Your task to perform on an android device: open app "Facebook Messenger" Image 0: 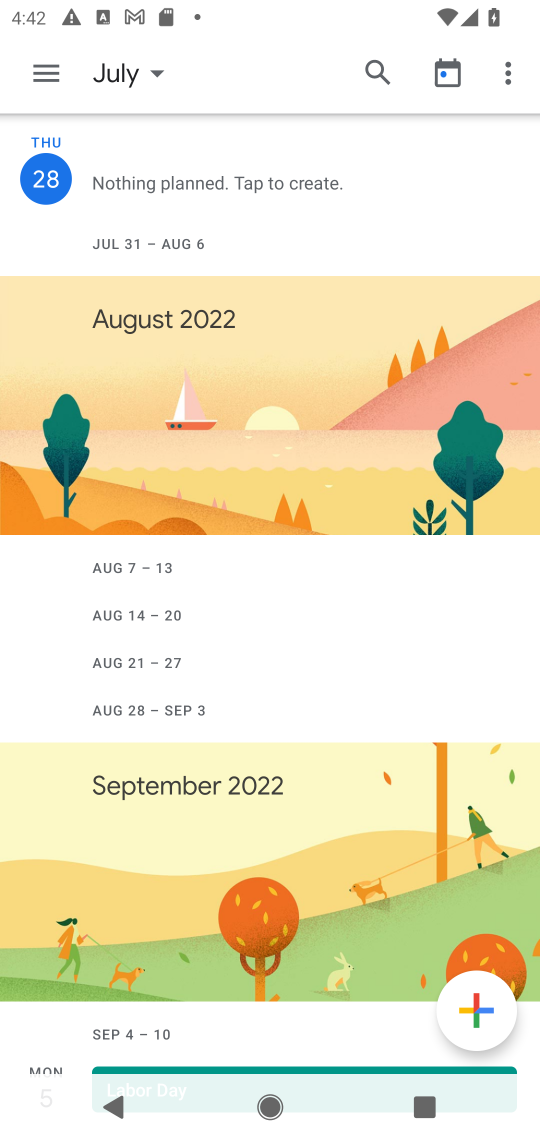
Step 0: press home button
Your task to perform on an android device: open app "Facebook Messenger" Image 1: 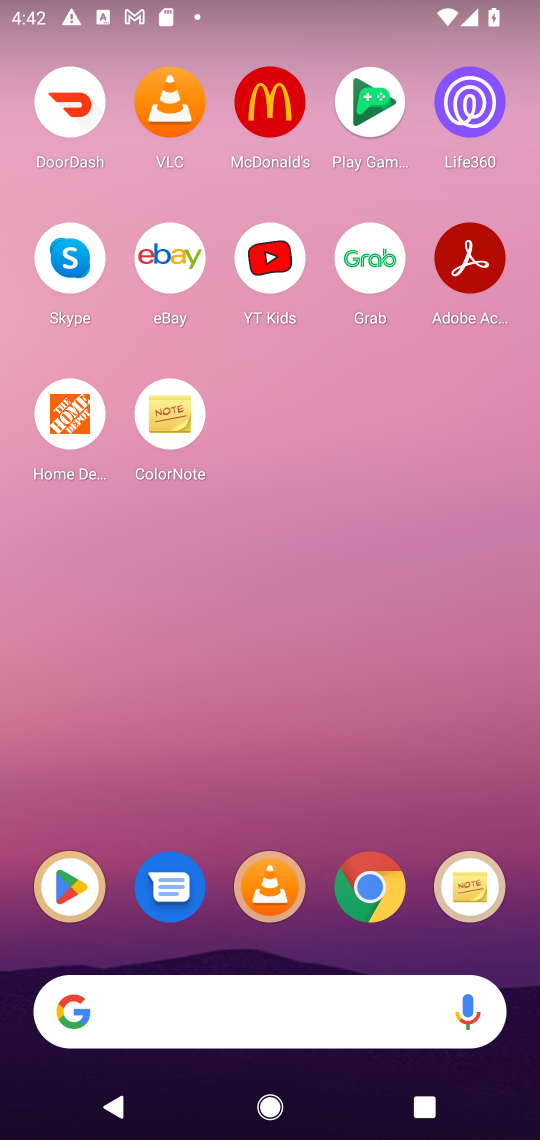
Step 1: click (80, 901)
Your task to perform on an android device: open app "Facebook Messenger" Image 2: 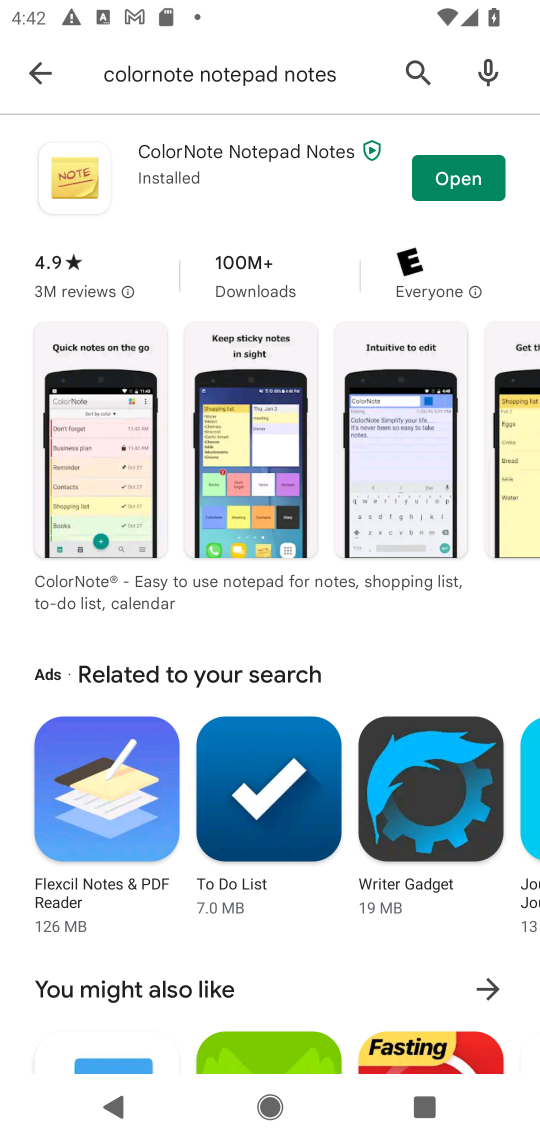
Step 2: click (255, 75)
Your task to perform on an android device: open app "Facebook Messenger" Image 3: 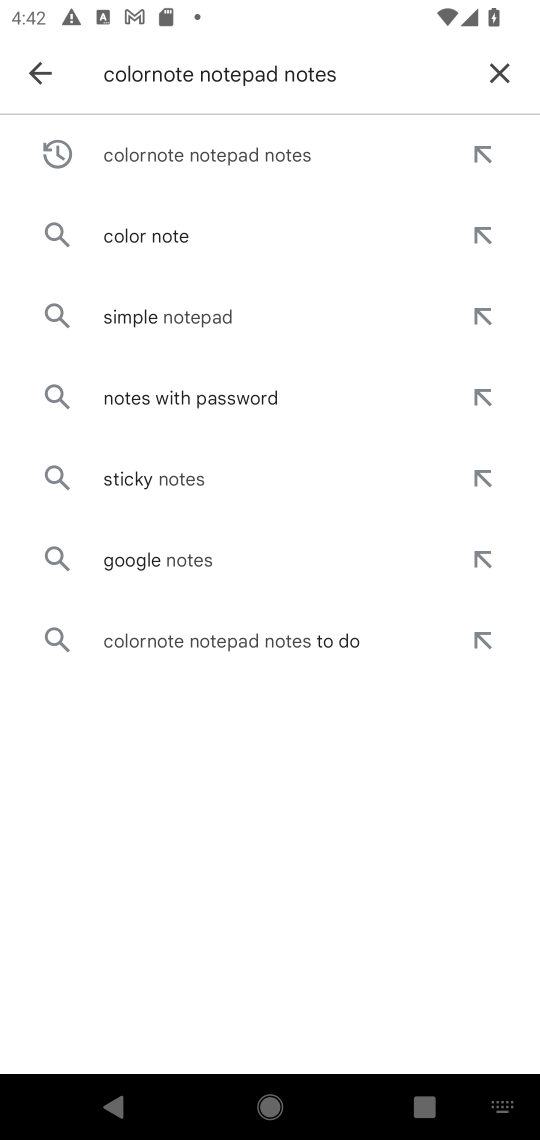
Step 3: click (504, 71)
Your task to perform on an android device: open app "Facebook Messenger" Image 4: 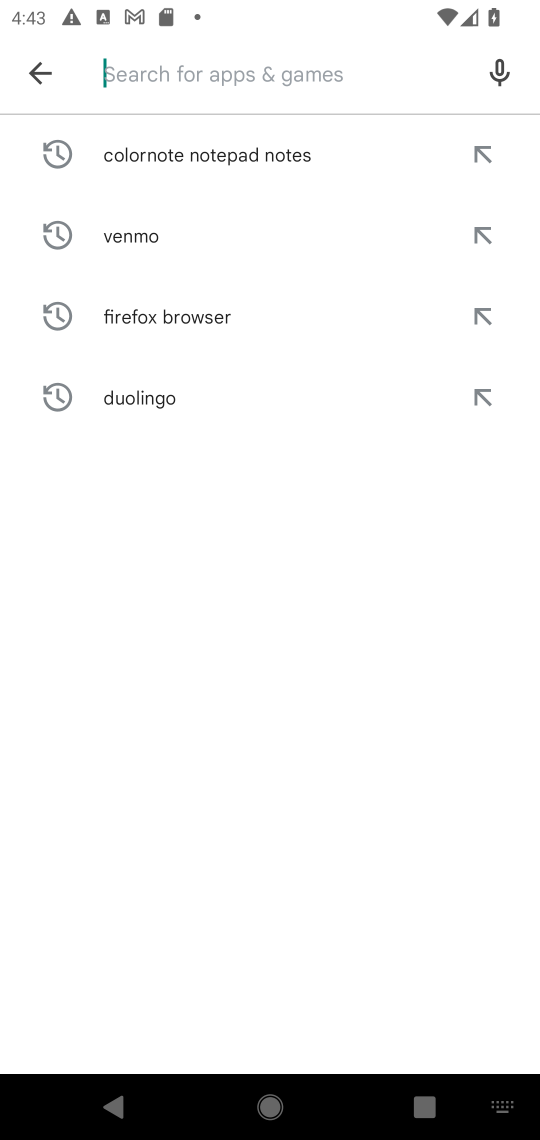
Step 4: type "Facebook Messenger"
Your task to perform on an android device: open app "Facebook Messenger" Image 5: 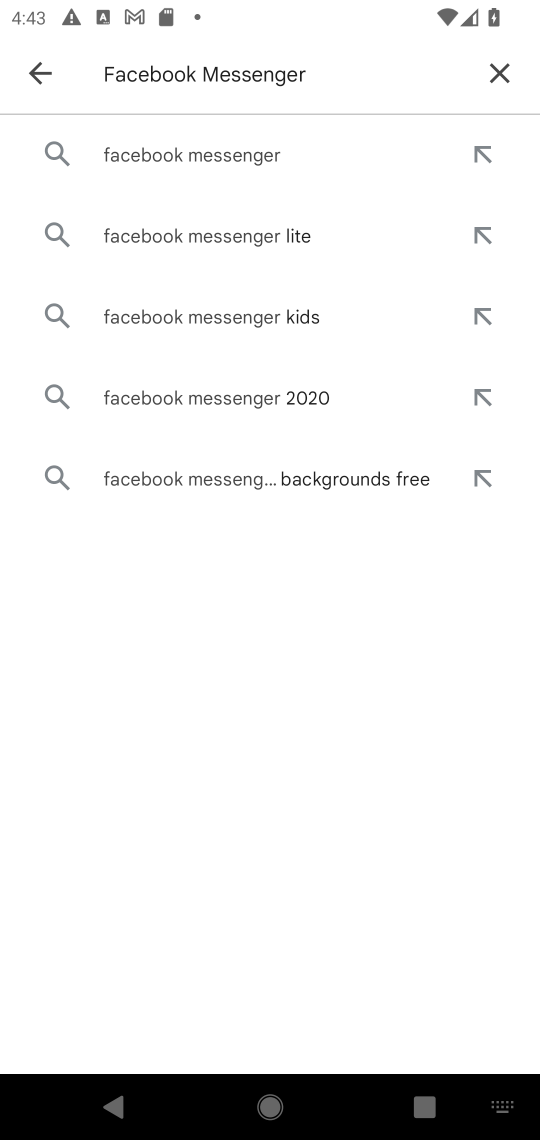
Step 5: click (243, 169)
Your task to perform on an android device: open app "Facebook Messenger" Image 6: 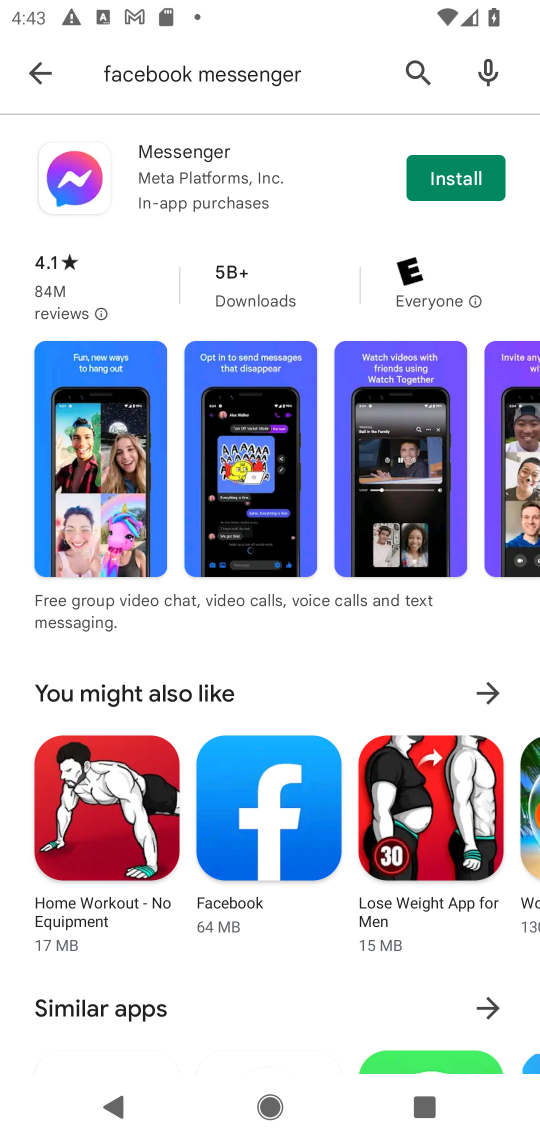
Step 6: task complete